Your task to perform on an android device: Open Maps and search for coffee Image 0: 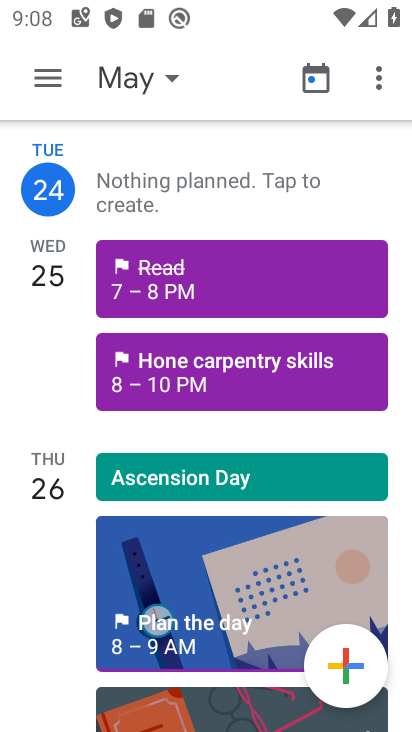
Step 0: press home button
Your task to perform on an android device: Open Maps and search for coffee Image 1: 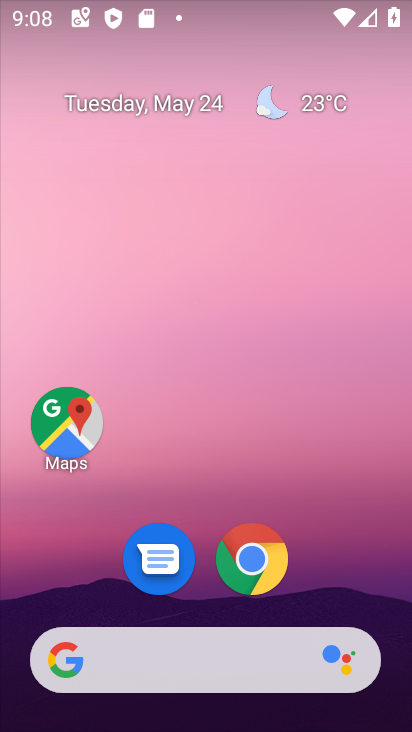
Step 1: click (84, 425)
Your task to perform on an android device: Open Maps and search for coffee Image 2: 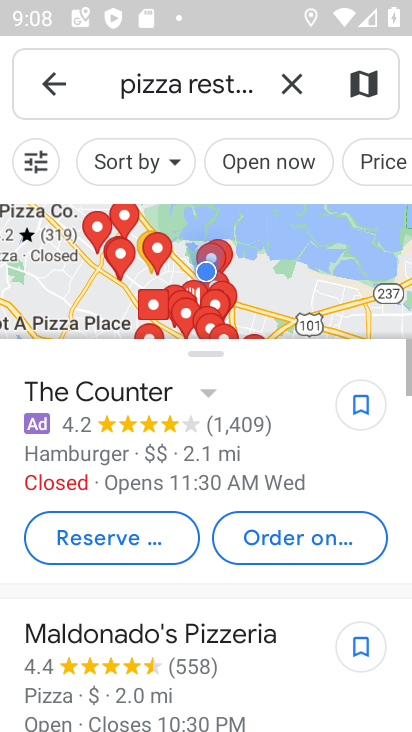
Step 2: click (232, 95)
Your task to perform on an android device: Open Maps and search for coffee Image 3: 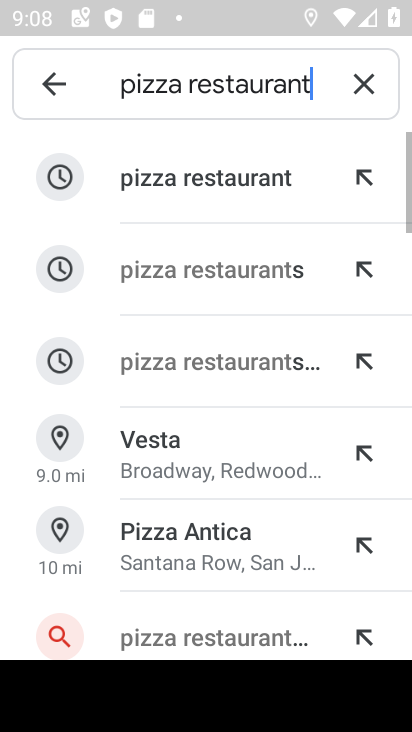
Step 3: click (353, 88)
Your task to perform on an android device: Open Maps and search for coffee Image 4: 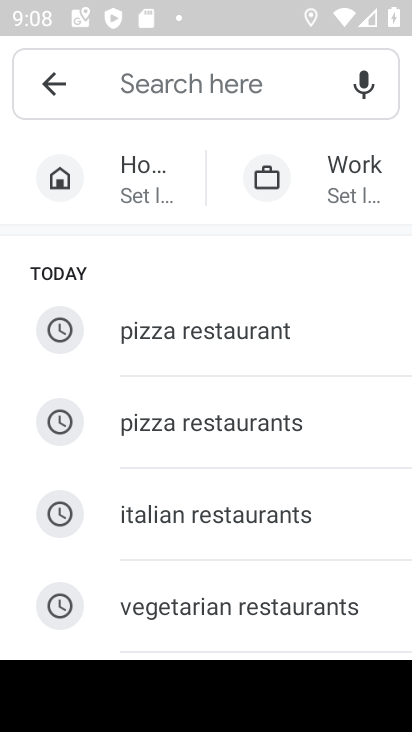
Step 4: type "coffee"
Your task to perform on an android device: Open Maps and search for coffee Image 5: 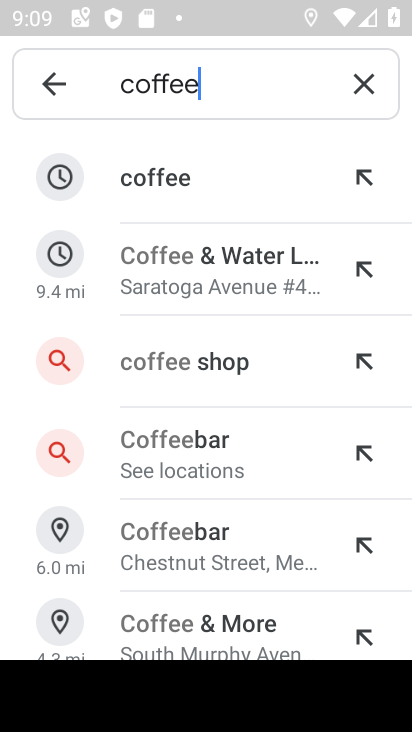
Step 5: click (176, 169)
Your task to perform on an android device: Open Maps and search for coffee Image 6: 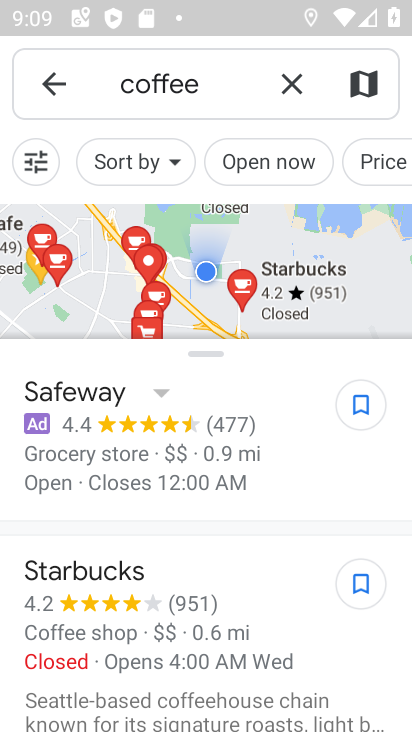
Step 6: task complete